Your task to perform on an android device: manage bookmarks in the chrome app Image 0: 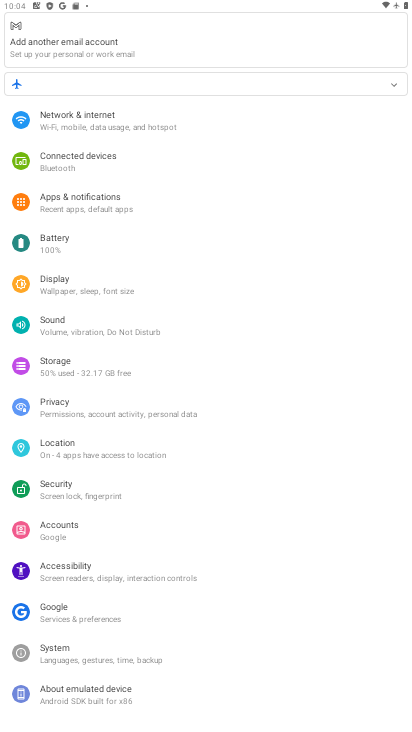
Step 0: task complete